Your task to perform on an android device: Go to CNN.com Image 0: 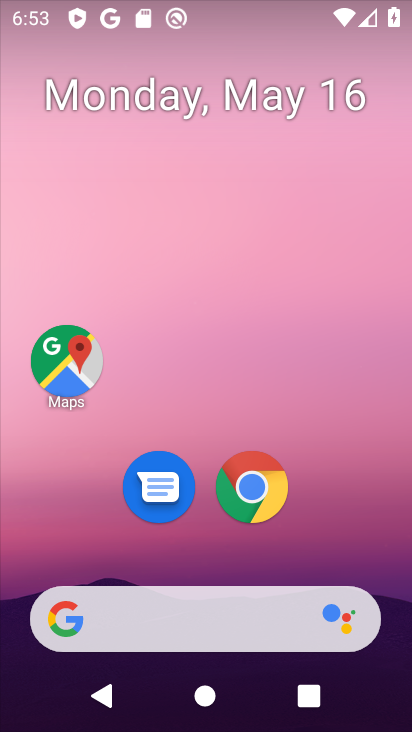
Step 0: click (261, 488)
Your task to perform on an android device: Go to CNN.com Image 1: 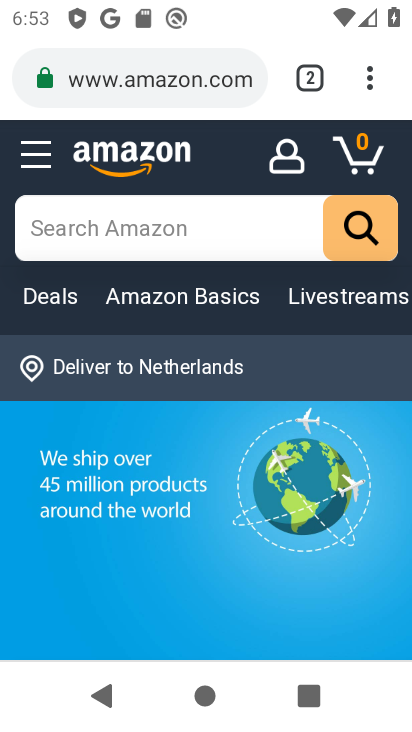
Step 1: click (174, 92)
Your task to perform on an android device: Go to CNN.com Image 2: 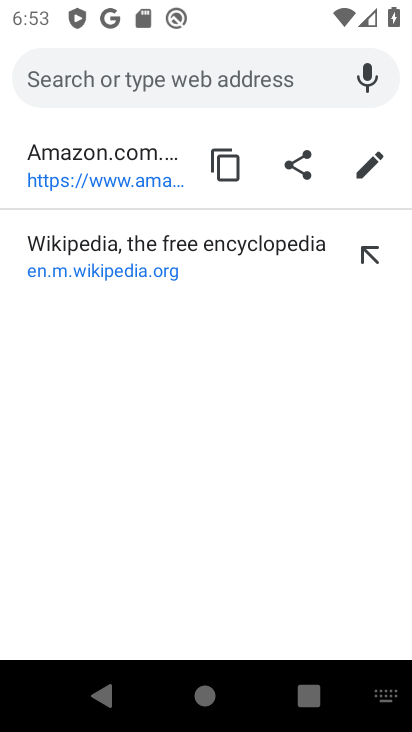
Step 2: type "cnn.com"
Your task to perform on an android device: Go to CNN.com Image 3: 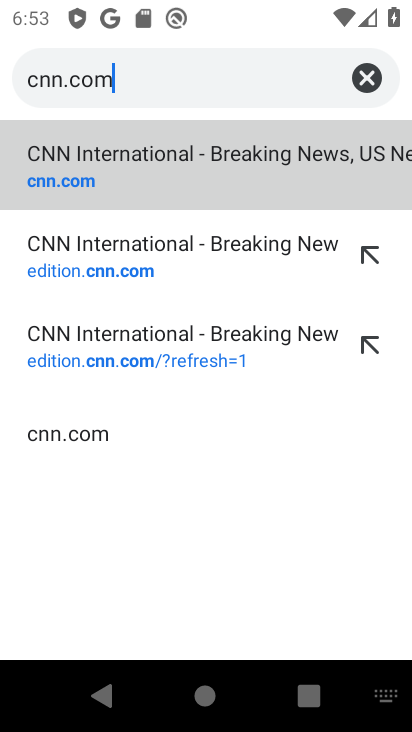
Step 3: click (163, 180)
Your task to perform on an android device: Go to CNN.com Image 4: 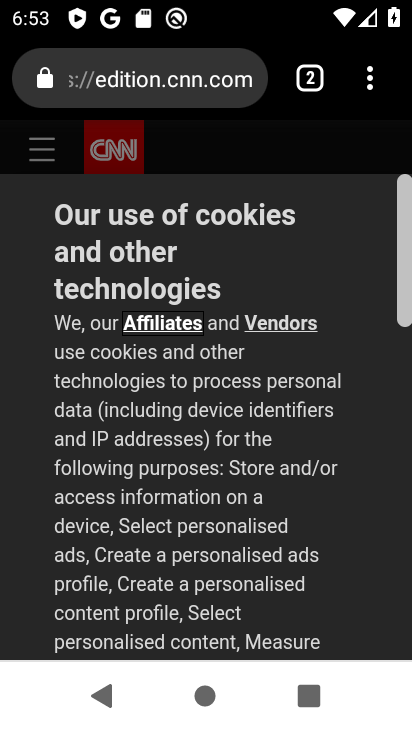
Step 4: task complete